Your task to perform on an android device: turn on airplane mode Image 0: 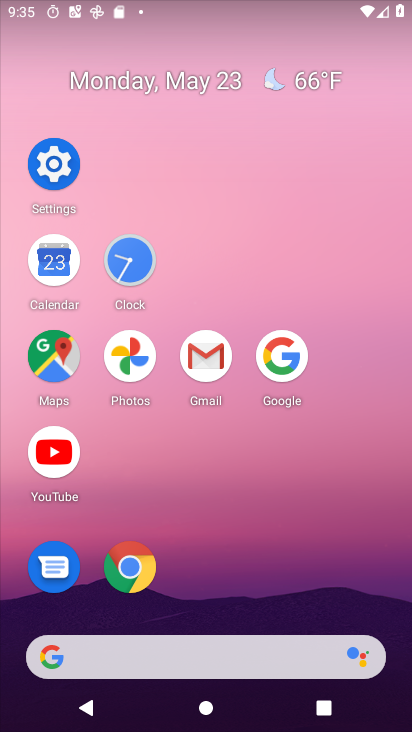
Step 0: click (84, 154)
Your task to perform on an android device: turn on airplane mode Image 1: 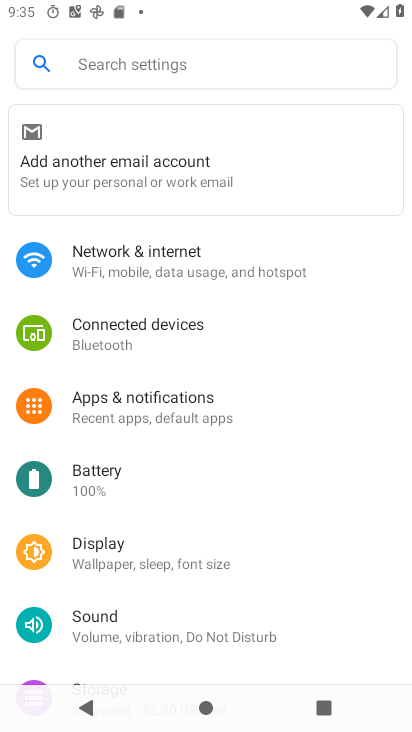
Step 1: click (175, 273)
Your task to perform on an android device: turn on airplane mode Image 2: 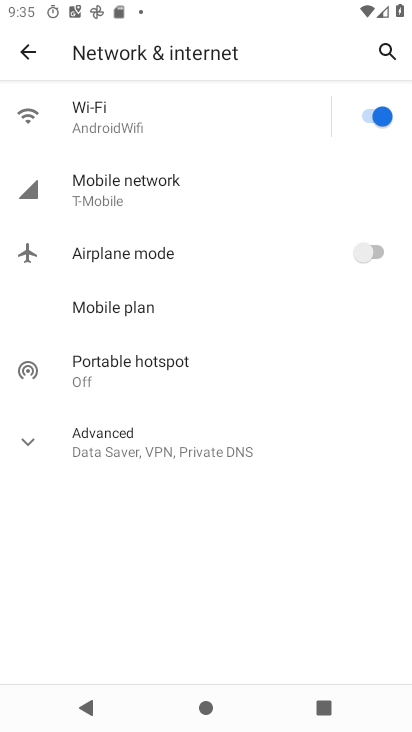
Step 2: click (380, 246)
Your task to perform on an android device: turn on airplane mode Image 3: 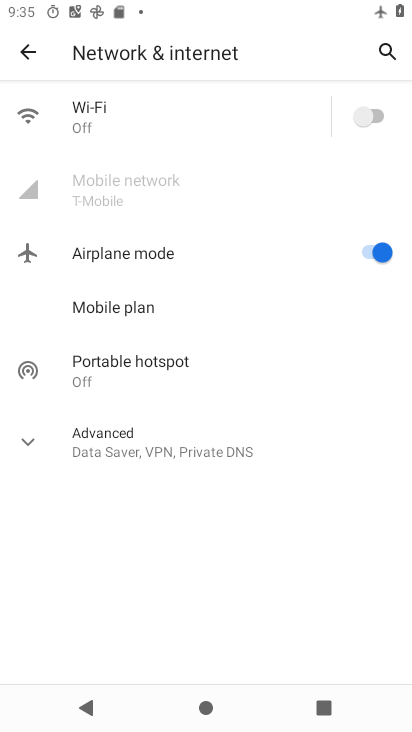
Step 3: task complete